Your task to perform on an android device: turn on data saver in the chrome app Image 0: 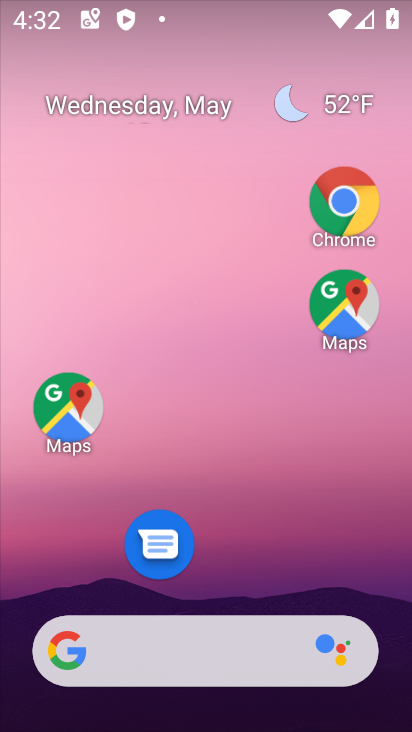
Step 0: click (357, 207)
Your task to perform on an android device: turn on data saver in the chrome app Image 1: 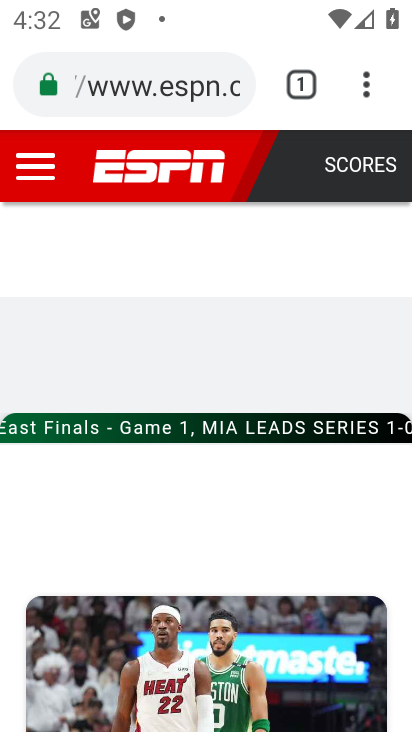
Step 1: click (374, 93)
Your task to perform on an android device: turn on data saver in the chrome app Image 2: 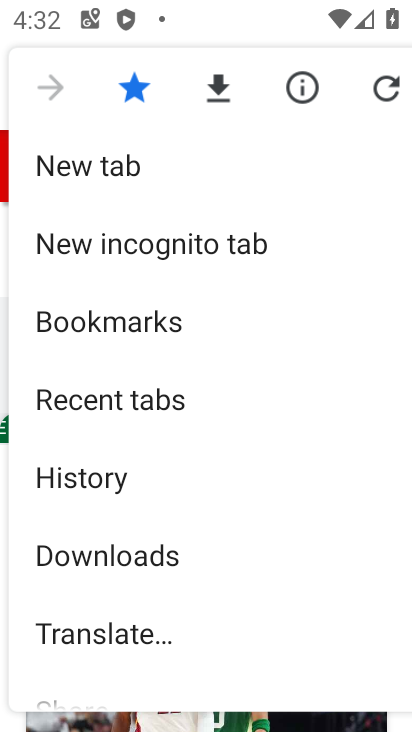
Step 2: drag from (178, 596) to (184, 257)
Your task to perform on an android device: turn on data saver in the chrome app Image 3: 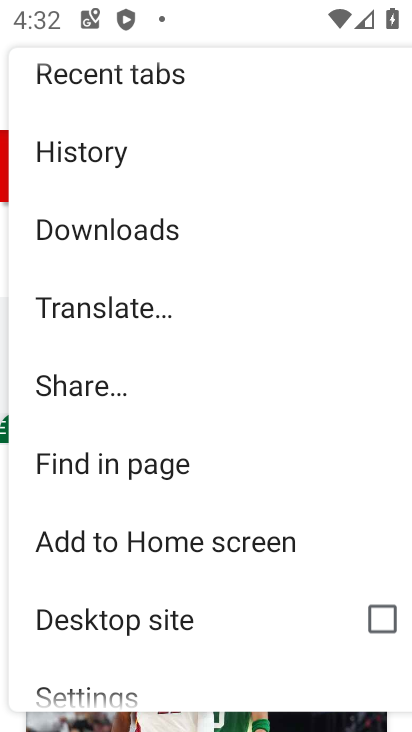
Step 3: click (101, 693)
Your task to perform on an android device: turn on data saver in the chrome app Image 4: 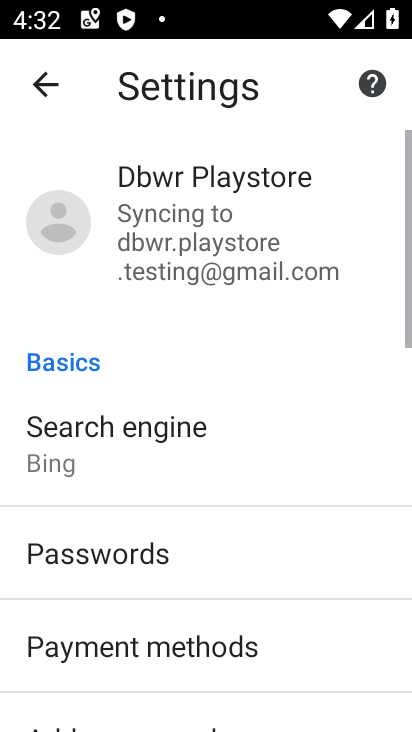
Step 4: drag from (158, 650) to (200, 349)
Your task to perform on an android device: turn on data saver in the chrome app Image 5: 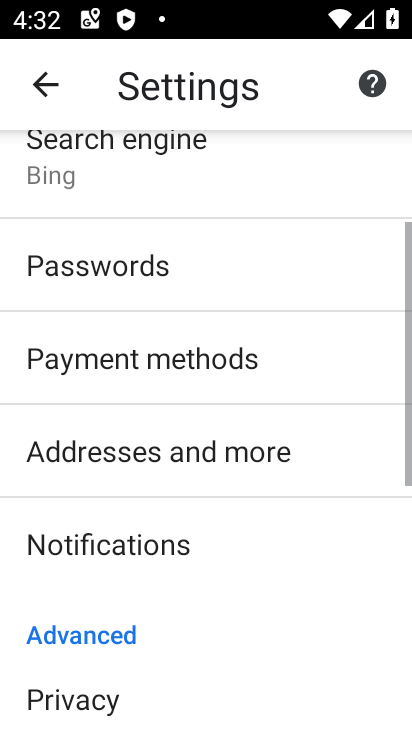
Step 5: drag from (154, 602) to (182, 236)
Your task to perform on an android device: turn on data saver in the chrome app Image 6: 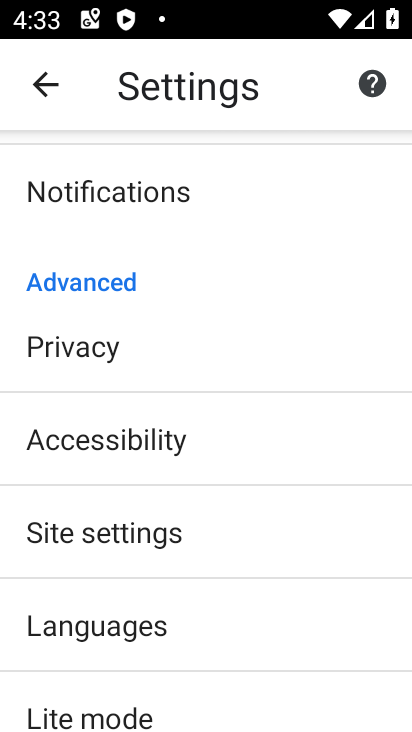
Step 6: drag from (159, 645) to (172, 435)
Your task to perform on an android device: turn on data saver in the chrome app Image 7: 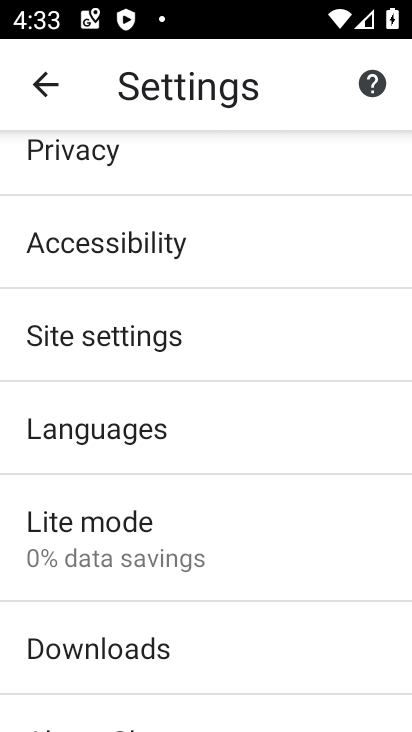
Step 7: click (147, 553)
Your task to perform on an android device: turn on data saver in the chrome app Image 8: 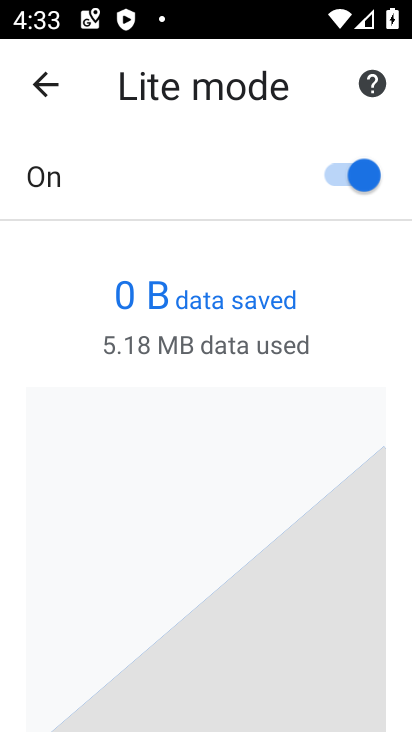
Step 8: task complete